Your task to perform on an android device: Open Google Chrome Image 0: 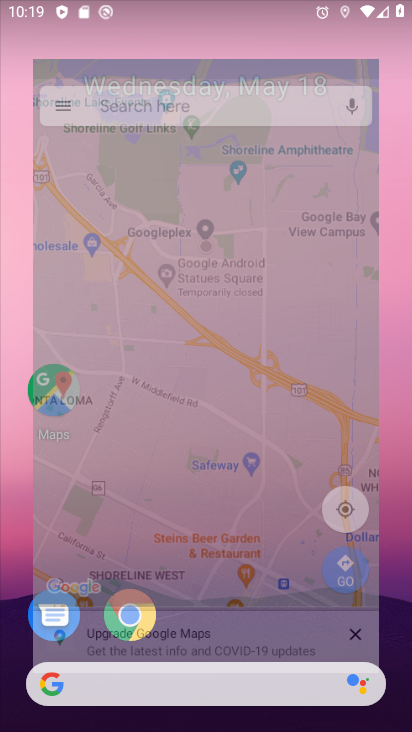
Step 0: drag from (215, 638) to (186, 294)
Your task to perform on an android device: Open Google Chrome Image 1: 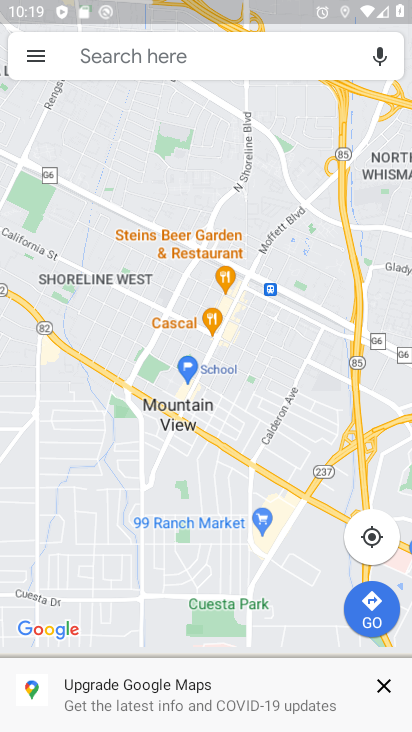
Step 1: press back button
Your task to perform on an android device: Open Google Chrome Image 2: 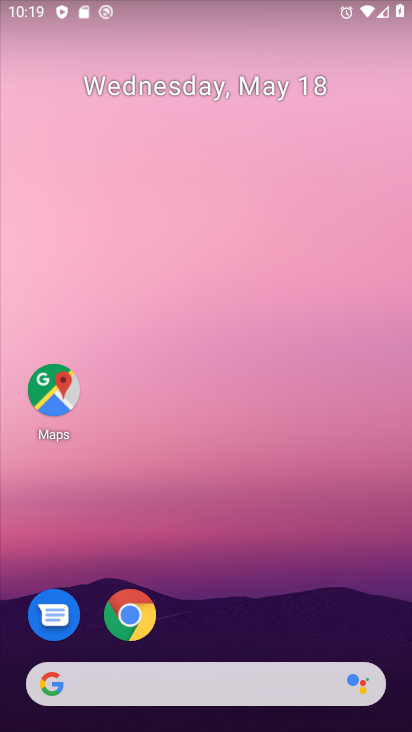
Step 2: click (133, 617)
Your task to perform on an android device: Open Google Chrome Image 3: 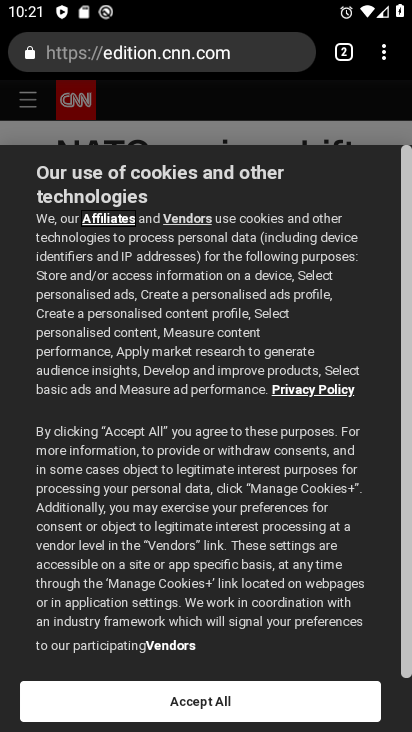
Step 3: task complete